Your task to perform on an android device: change your default location settings in chrome Image 0: 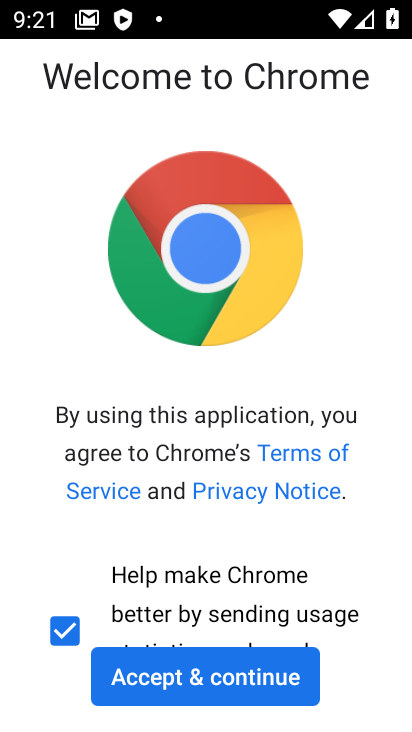
Step 0: click (189, 674)
Your task to perform on an android device: change your default location settings in chrome Image 1: 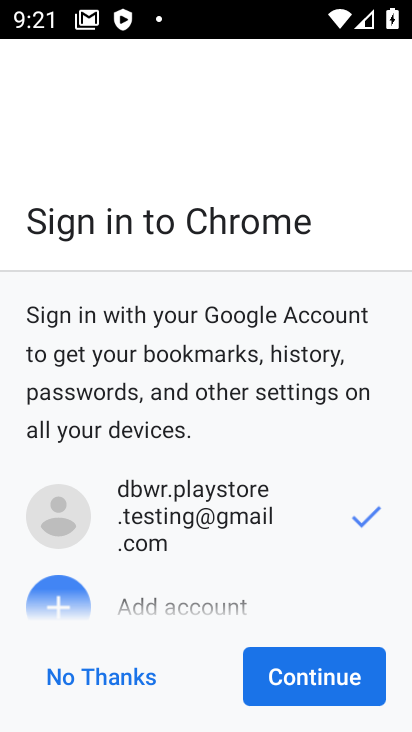
Step 1: click (314, 671)
Your task to perform on an android device: change your default location settings in chrome Image 2: 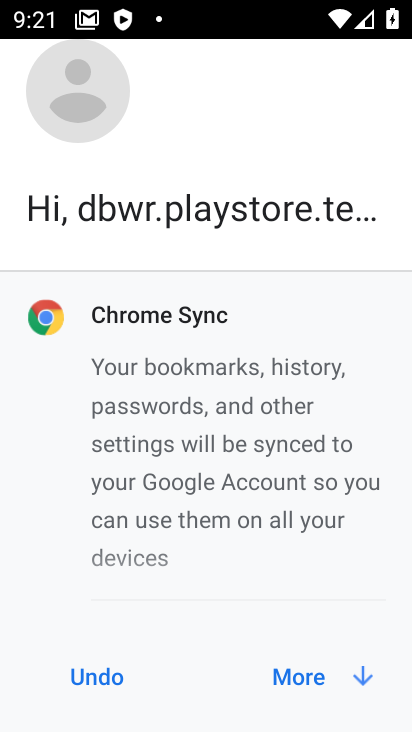
Step 2: click (314, 671)
Your task to perform on an android device: change your default location settings in chrome Image 3: 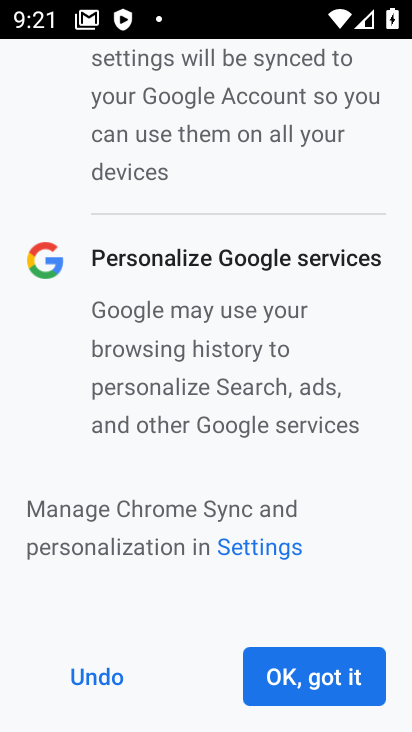
Step 3: click (314, 671)
Your task to perform on an android device: change your default location settings in chrome Image 4: 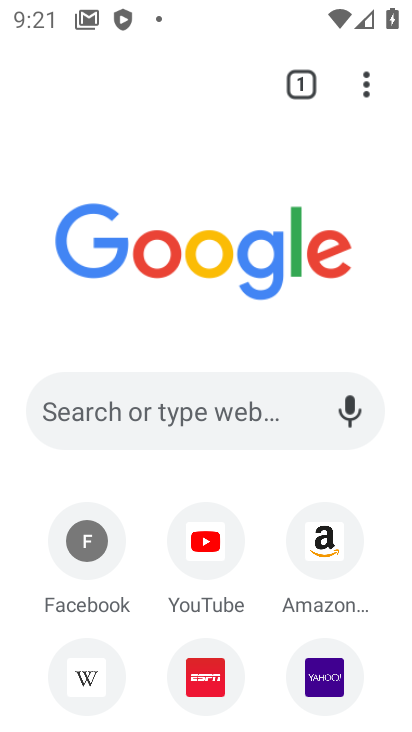
Step 4: click (368, 80)
Your task to perform on an android device: change your default location settings in chrome Image 5: 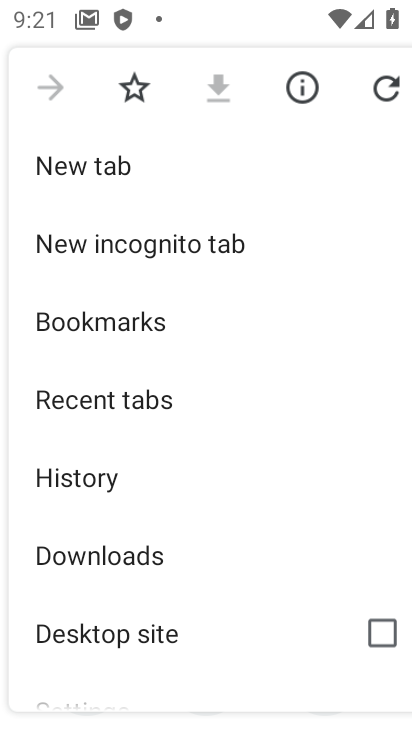
Step 5: drag from (184, 533) to (216, 411)
Your task to perform on an android device: change your default location settings in chrome Image 6: 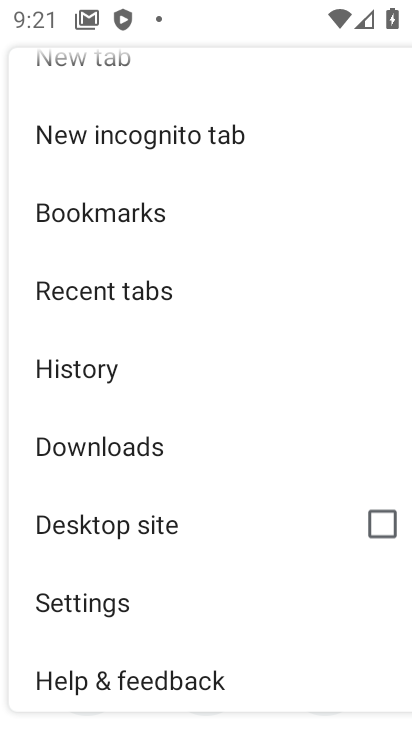
Step 6: drag from (177, 538) to (230, 446)
Your task to perform on an android device: change your default location settings in chrome Image 7: 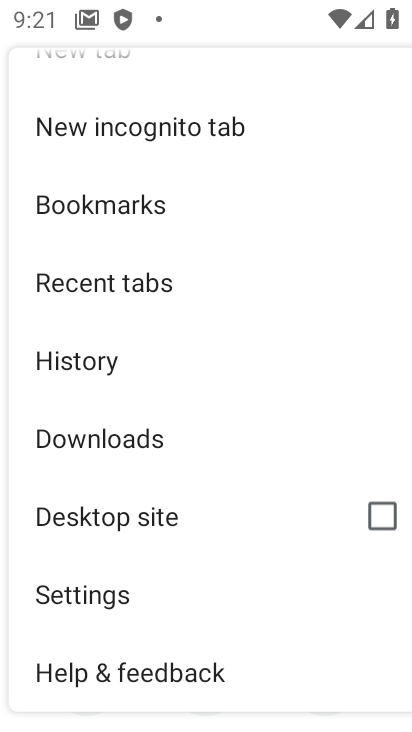
Step 7: click (92, 590)
Your task to perform on an android device: change your default location settings in chrome Image 8: 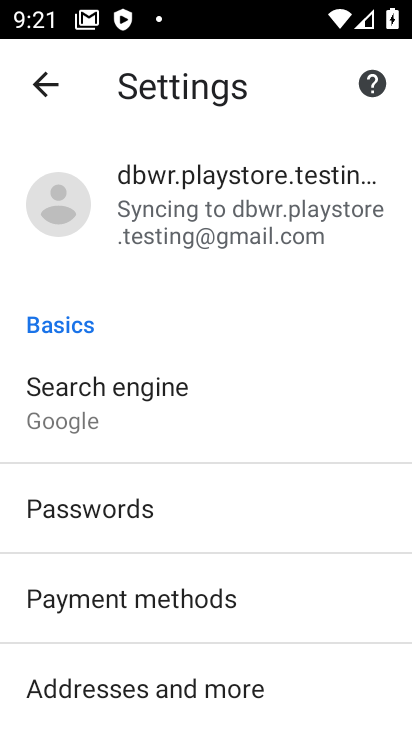
Step 8: drag from (139, 561) to (207, 477)
Your task to perform on an android device: change your default location settings in chrome Image 9: 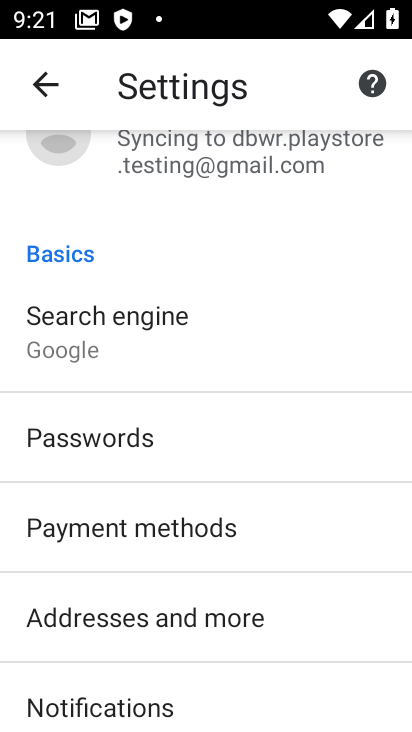
Step 9: drag from (139, 634) to (252, 508)
Your task to perform on an android device: change your default location settings in chrome Image 10: 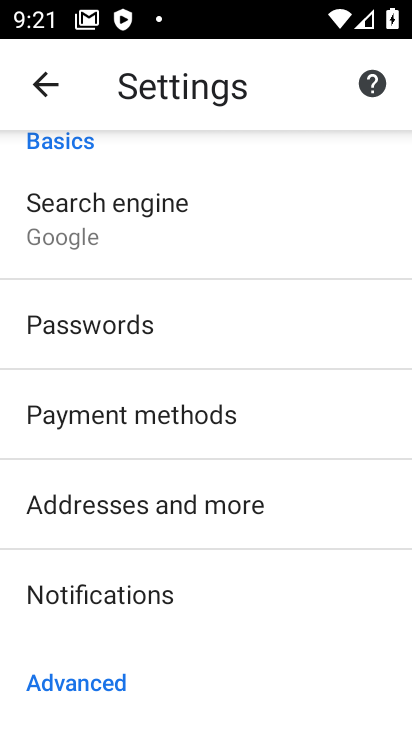
Step 10: drag from (163, 642) to (248, 528)
Your task to perform on an android device: change your default location settings in chrome Image 11: 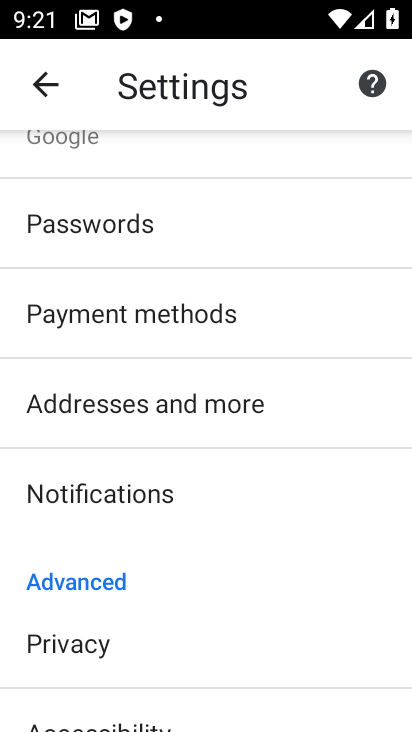
Step 11: drag from (163, 641) to (265, 527)
Your task to perform on an android device: change your default location settings in chrome Image 12: 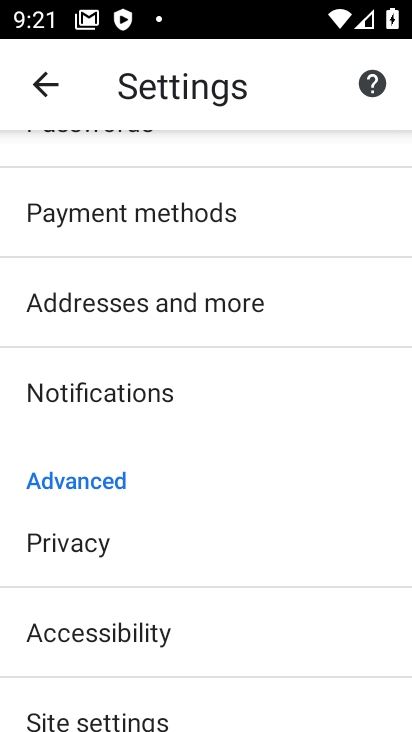
Step 12: drag from (185, 658) to (277, 523)
Your task to perform on an android device: change your default location settings in chrome Image 13: 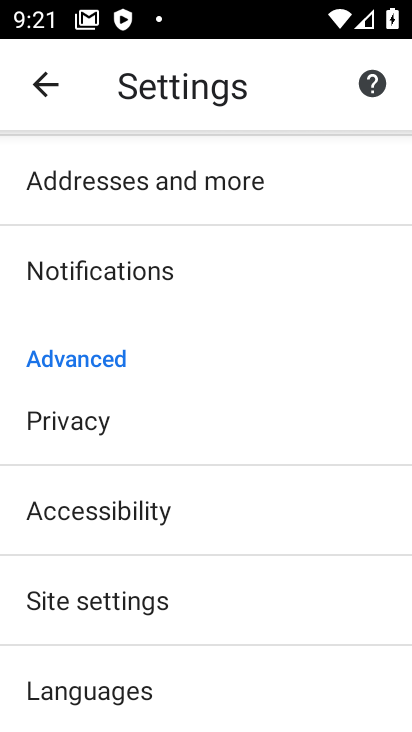
Step 13: click (153, 597)
Your task to perform on an android device: change your default location settings in chrome Image 14: 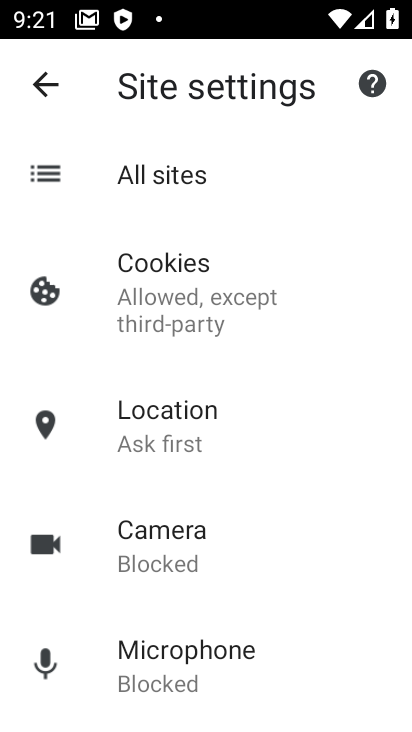
Step 14: drag from (229, 575) to (233, 528)
Your task to perform on an android device: change your default location settings in chrome Image 15: 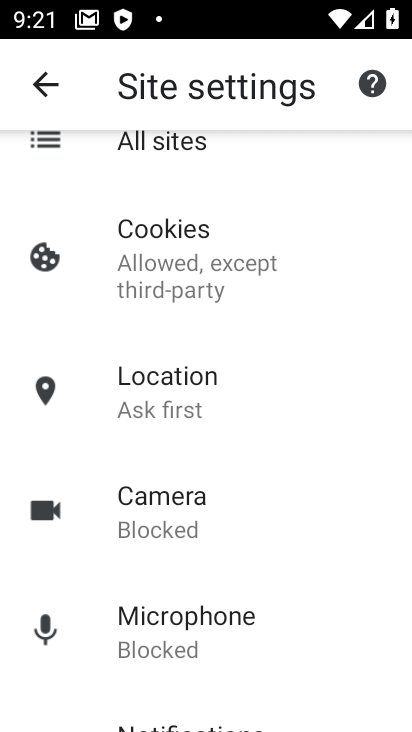
Step 15: click (195, 389)
Your task to perform on an android device: change your default location settings in chrome Image 16: 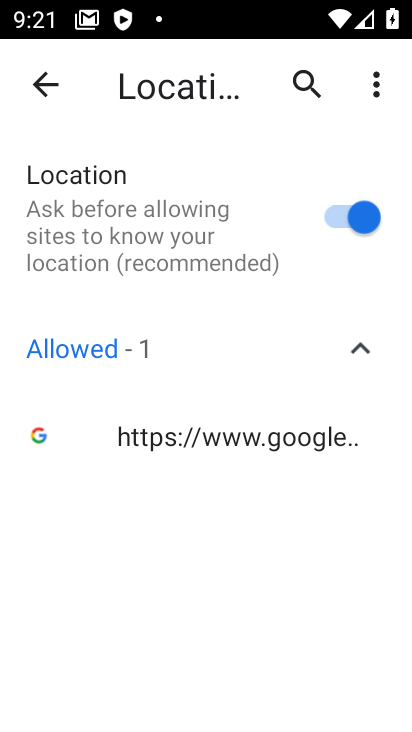
Step 16: click (368, 211)
Your task to perform on an android device: change your default location settings in chrome Image 17: 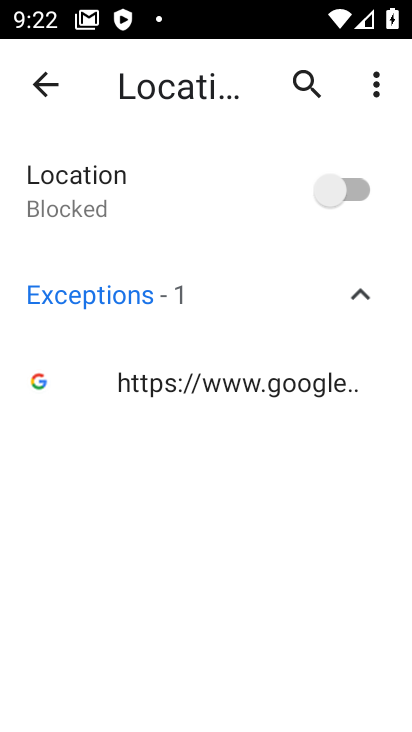
Step 17: task complete